Your task to perform on an android device: turn off translation in the chrome app Image 0: 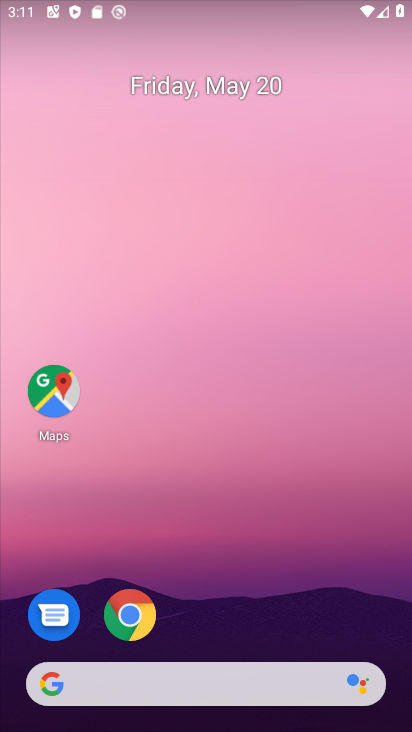
Step 0: drag from (266, 568) to (240, 260)
Your task to perform on an android device: turn off translation in the chrome app Image 1: 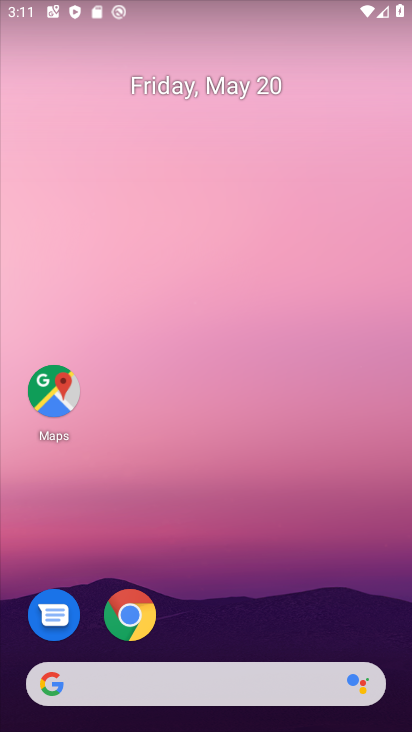
Step 1: drag from (243, 555) to (249, 122)
Your task to perform on an android device: turn off translation in the chrome app Image 2: 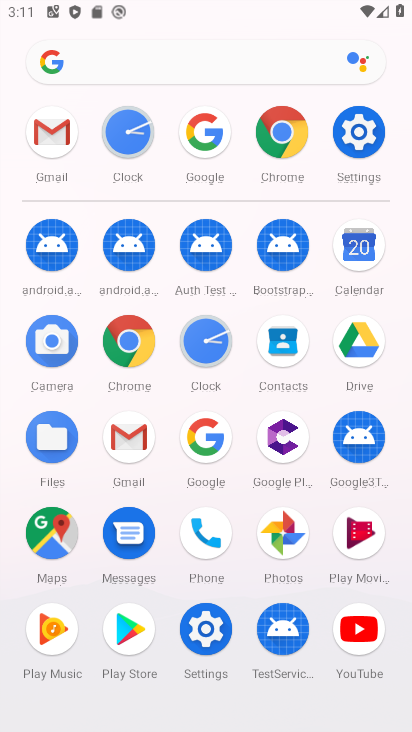
Step 2: click (128, 340)
Your task to perform on an android device: turn off translation in the chrome app Image 3: 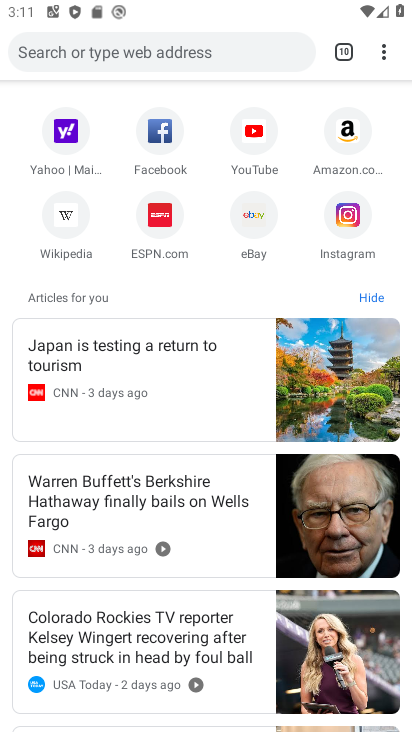
Step 3: click (384, 48)
Your task to perform on an android device: turn off translation in the chrome app Image 4: 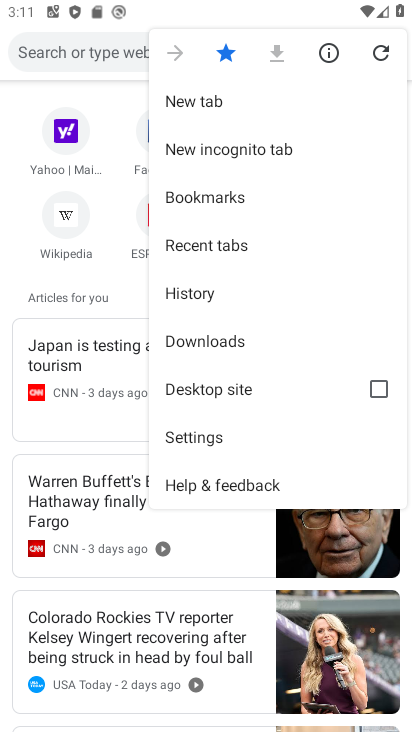
Step 4: click (228, 437)
Your task to perform on an android device: turn off translation in the chrome app Image 5: 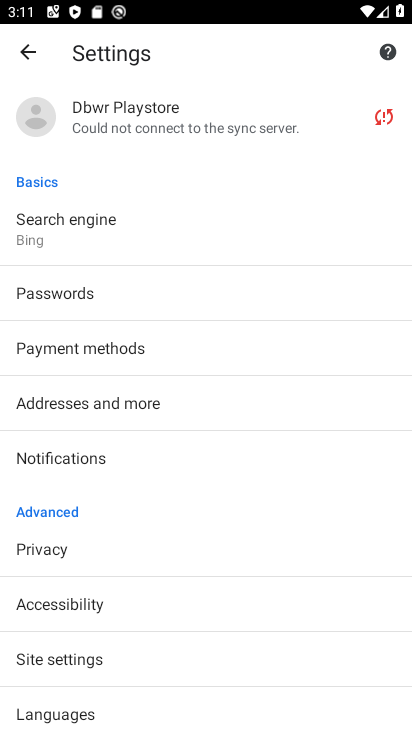
Step 5: drag from (198, 611) to (252, 391)
Your task to perform on an android device: turn off translation in the chrome app Image 6: 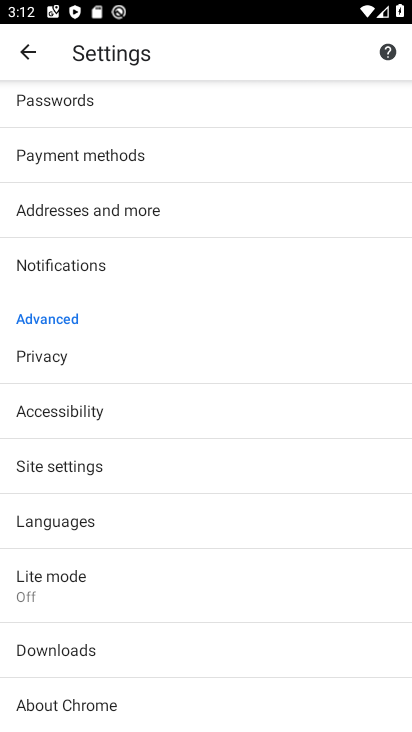
Step 6: click (80, 515)
Your task to perform on an android device: turn off translation in the chrome app Image 7: 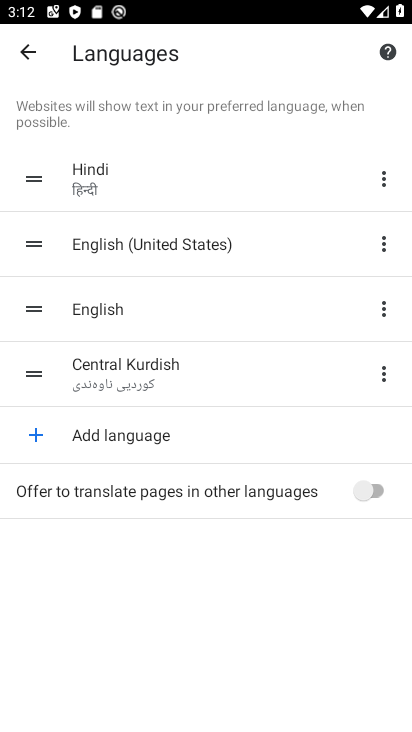
Step 7: task complete